Your task to perform on an android device: check storage Image 0: 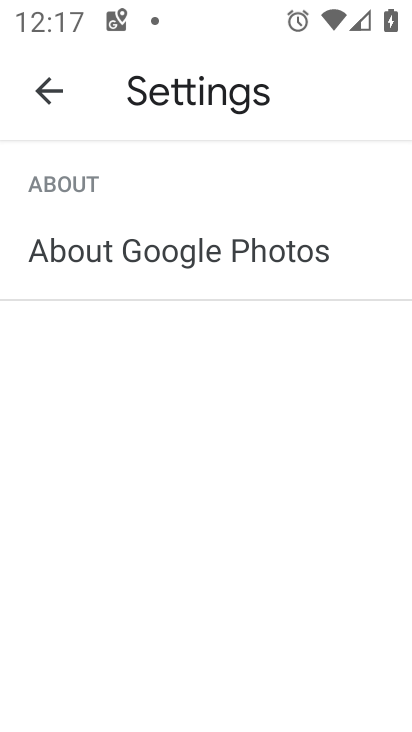
Step 0: press home button
Your task to perform on an android device: check storage Image 1: 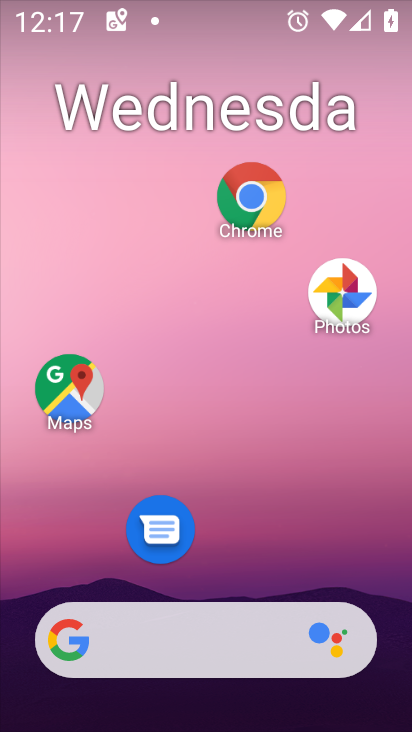
Step 1: drag from (206, 618) to (199, 76)
Your task to perform on an android device: check storage Image 2: 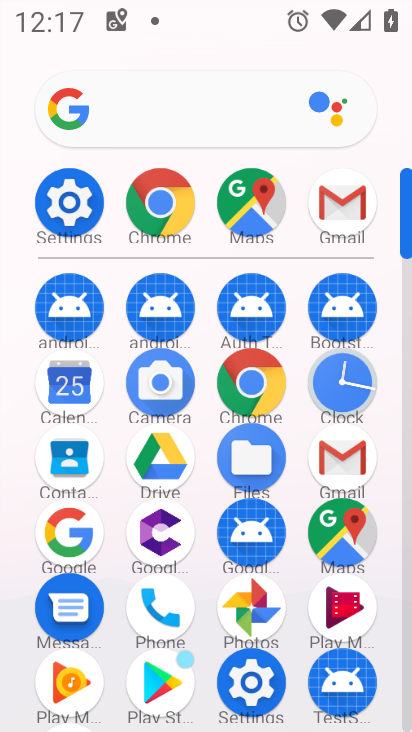
Step 2: click (259, 694)
Your task to perform on an android device: check storage Image 3: 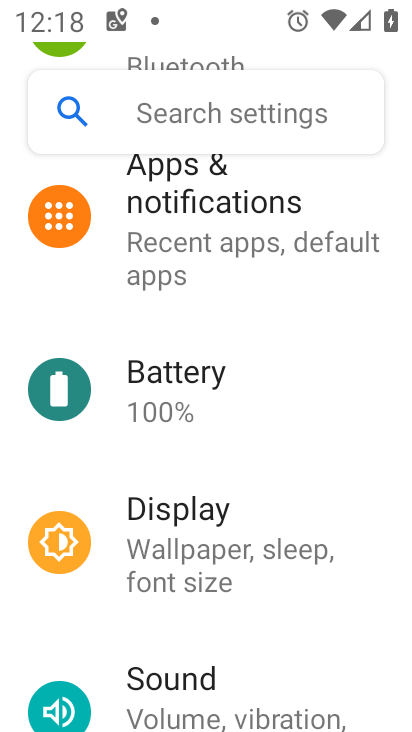
Step 3: drag from (222, 592) to (331, 141)
Your task to perform on an android device: check storage Image 4: 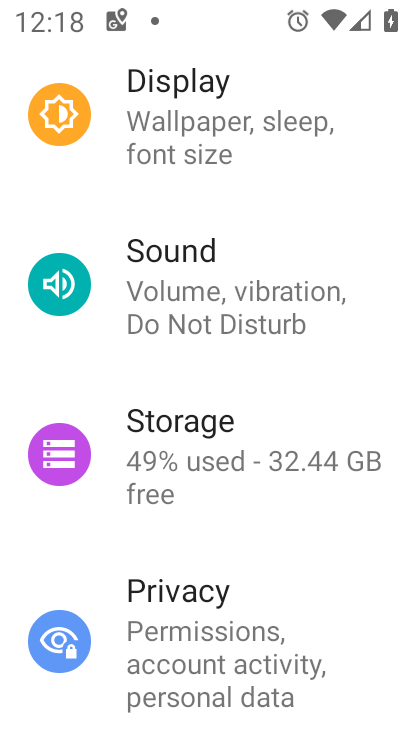
Step 4: click (218, 422)
Your task to perform on an android device: check storage Image 5: 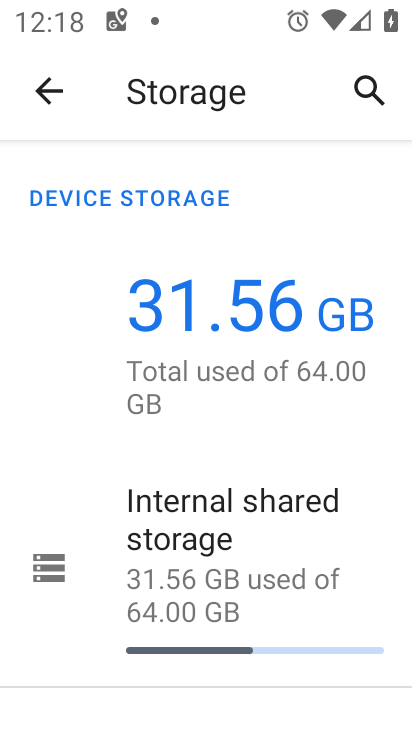
Step 5: click (230, 539)
Your task to perform on an android device: check storage Image 6: 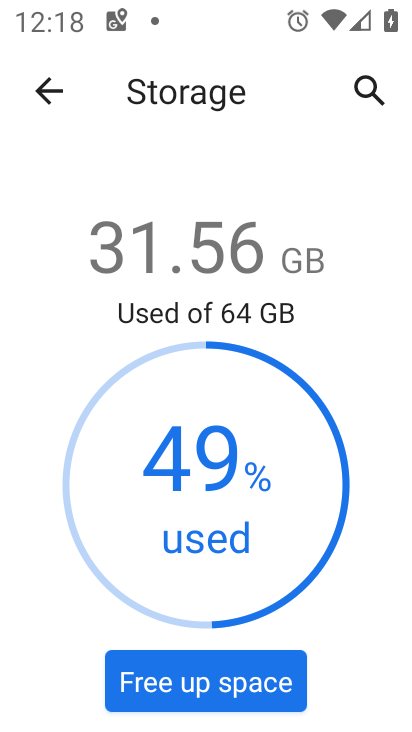
Step 6: task complete